Your task to perform on an android device: set the stopwatch Image 0: 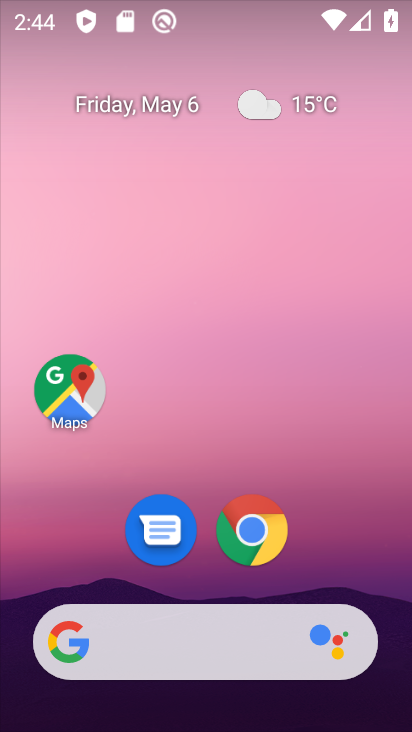
Step 0: drag from (360, 536) to (272, 58)
Your task to perform on an android device: set the stopwatch Image 1: 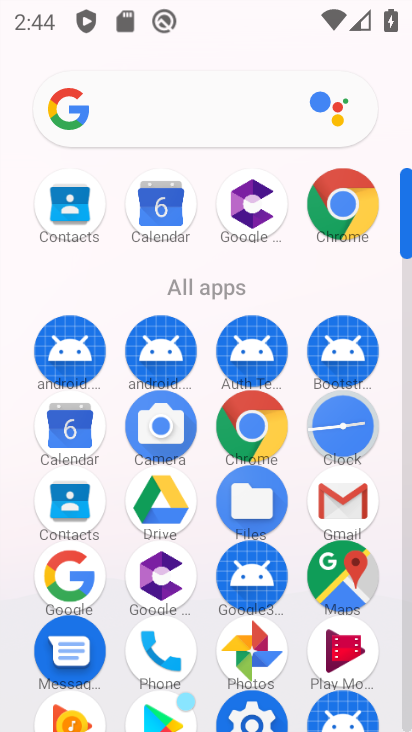
Step 1: click (342, 416)
Your task to perform on an android device: set the stopwatch Image 2: 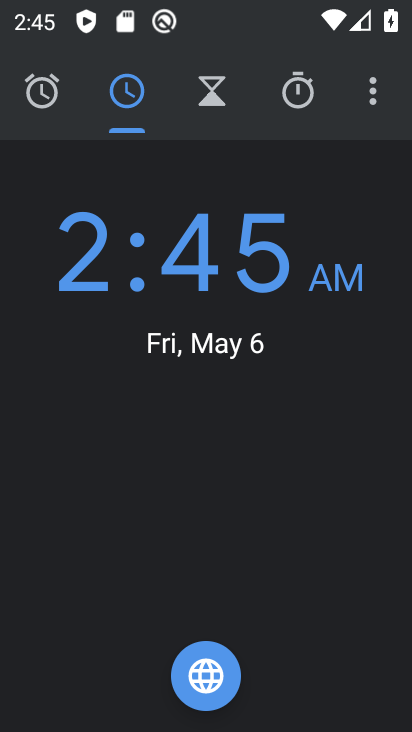
Step 2: click (319, 93)
Your task to perform on an android device: set the stopwatch Image 3: 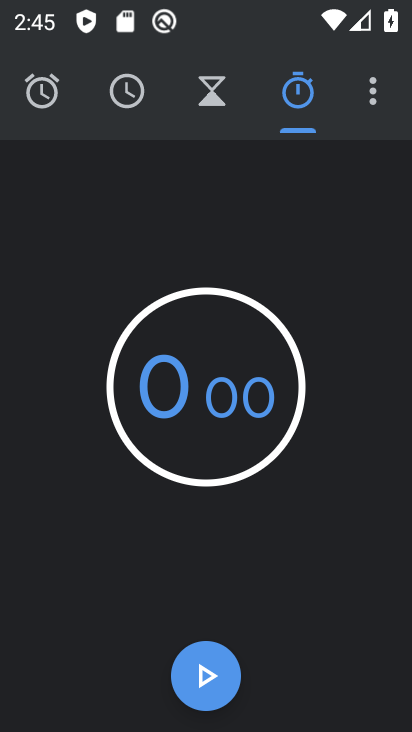
Step 3: click (224, 677)
Your task to perform on an android device: set the stopwatch Image 4: 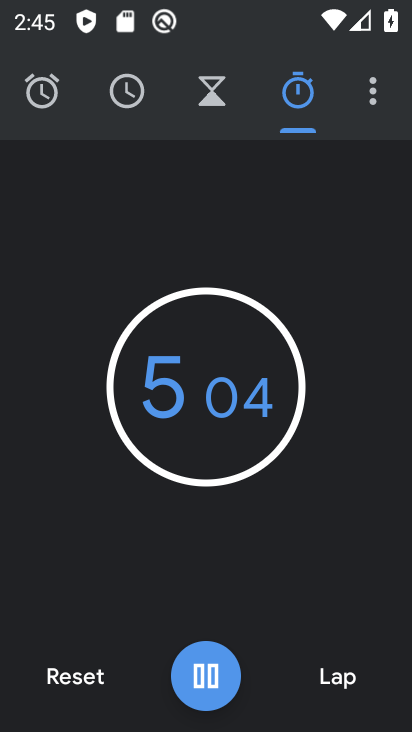
Step 4: task complete